Your task to perform on an android device: find which apps use the phone's location Image 0: 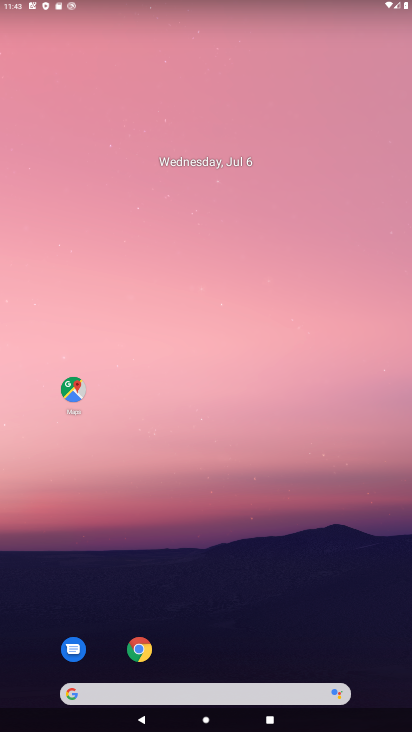
Step 0: drag from (390, 671) to (222, 57)
Your task to perform on an android device: find which apps use the phone's location Image 1: 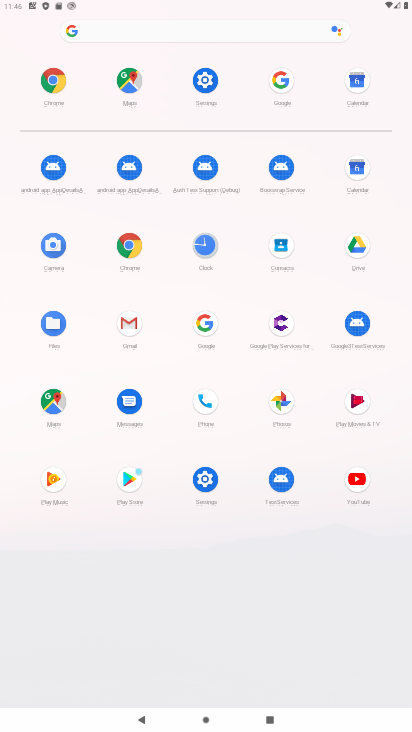
Step 1: click (209, 75)
Your task to perform on an android device: find which apps use the phone's location Image 2: 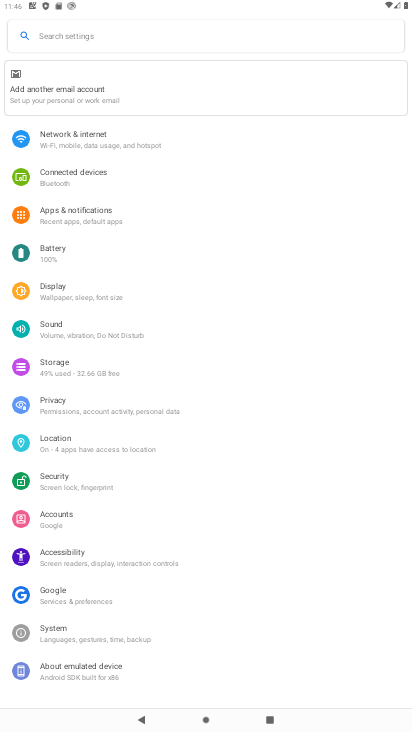
Step 2: click (78, 442)
Your task to perform on an android device: find which apps use the phone's location Image 3: 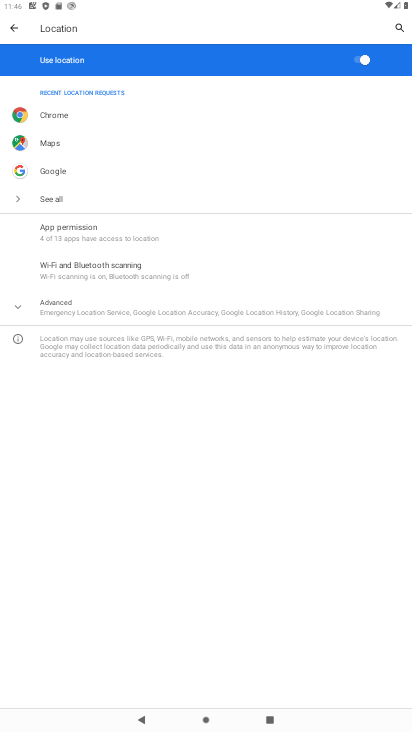
Step 3: click (110, 242)
Your task to perform on an android device: find which apps use the phone's location Image 4: 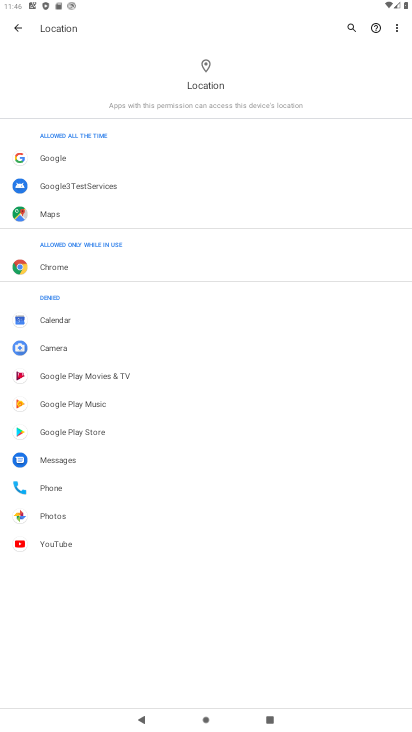
Step 4: click (33, 483)
Your task to perform on an android device: find which apps use the phone's location Image 5: 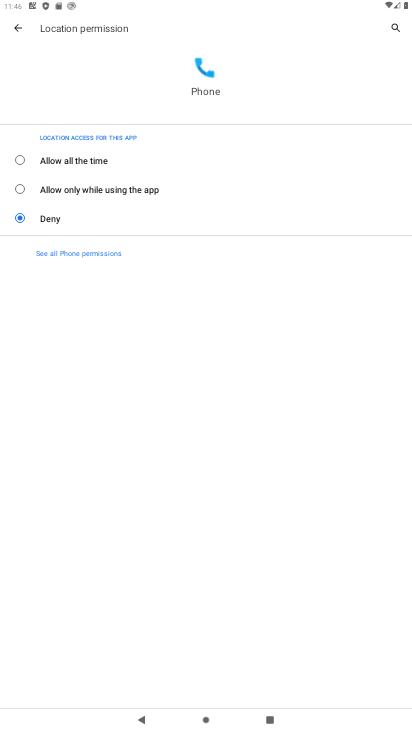
Step 5: click (13, 164)
Your task to perform on an android device: find which apps use the phone's location Image 6: 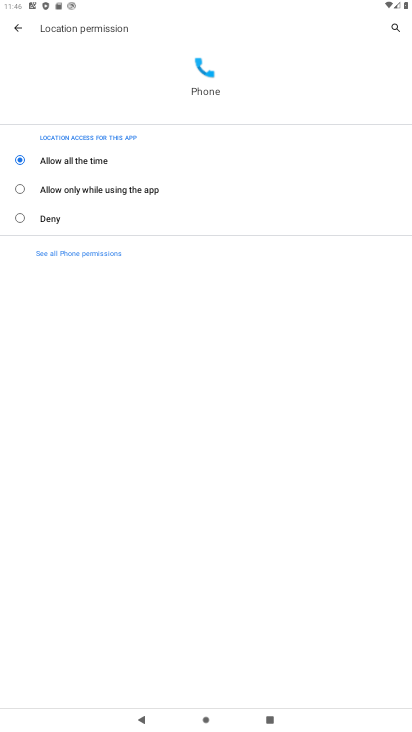
Step 6: task complete